Your task to perform on an android device: turn off location history Image 0: 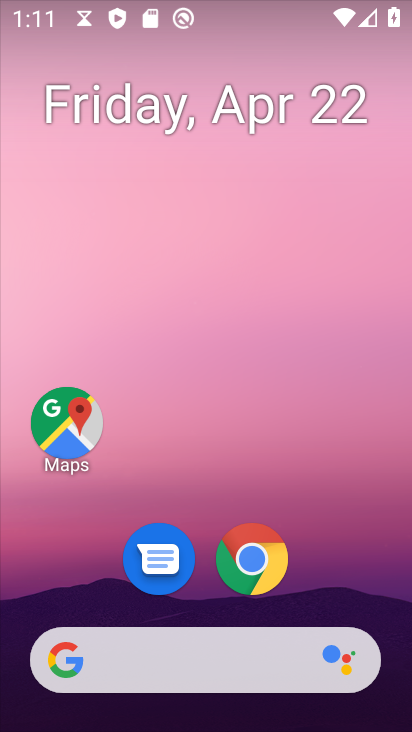
Step 0: drag from (224, 628) to (260, 300)
Your task to perform on an android device: turn off location history Image 1: 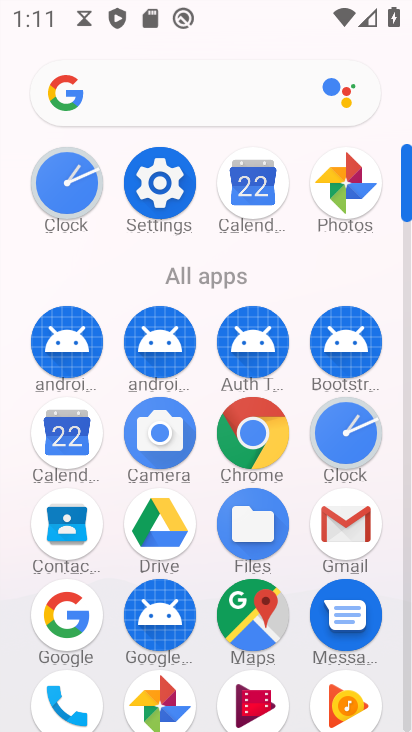
Step 1: click (148, 188)
Your task to perform on an android device: turn off location history Image 2: 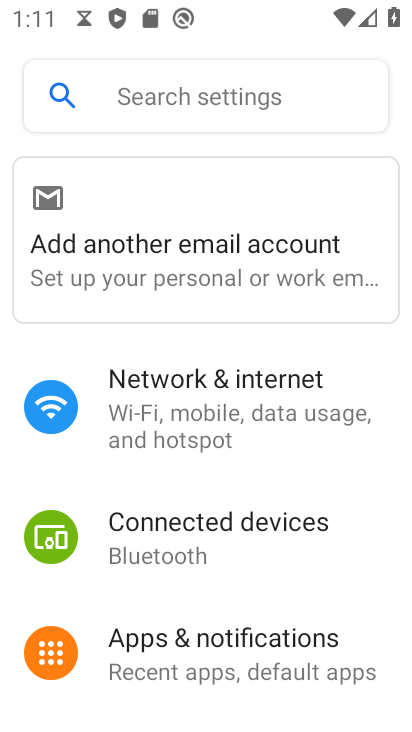
Step 2: drag from (265, 666) to (316, 242)
Your task to perform on an android device: turn off location history Image 3: 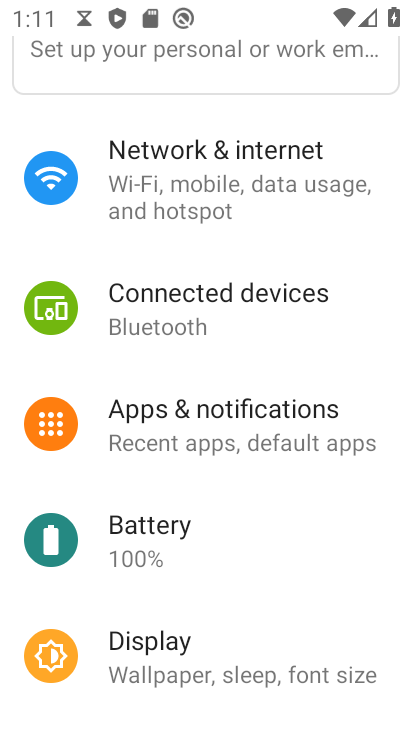
Step 3: drag from (287, 691) to (257, 320)
Your task to perform on an android device: turn off location history Image 4: 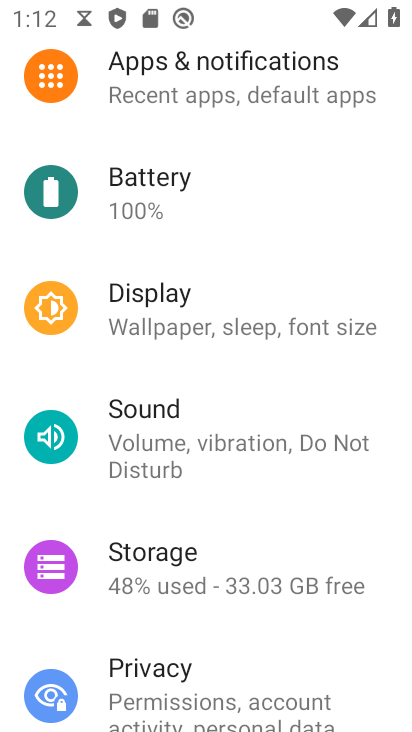
Step 4: drag from (226, 720) to (226, 348)
Your task to perform on an android device: turn off location history Image 5: 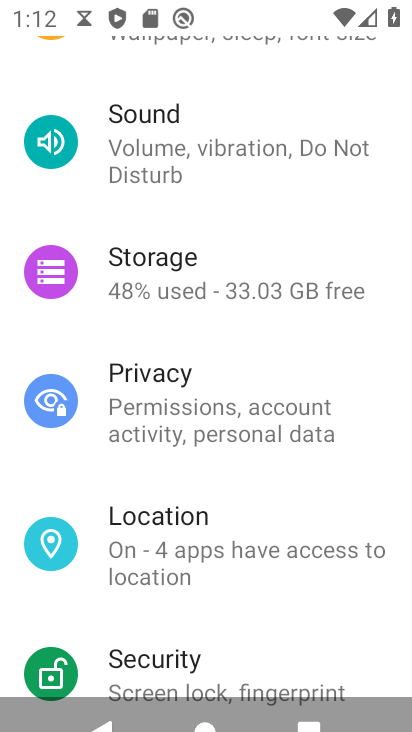
Step 5: click (174, 541)
Your task to perform on an android device: turn off location history Image 6: 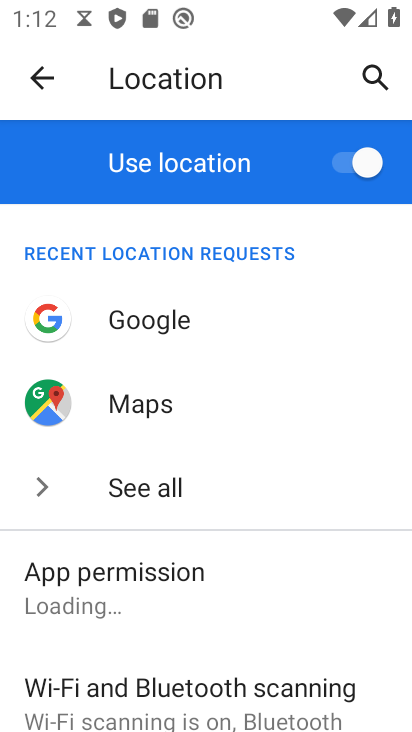
Step 6: drag from (248, 701) to (293, 374)
Your task to perform on an android device: turn off location history Image 7: 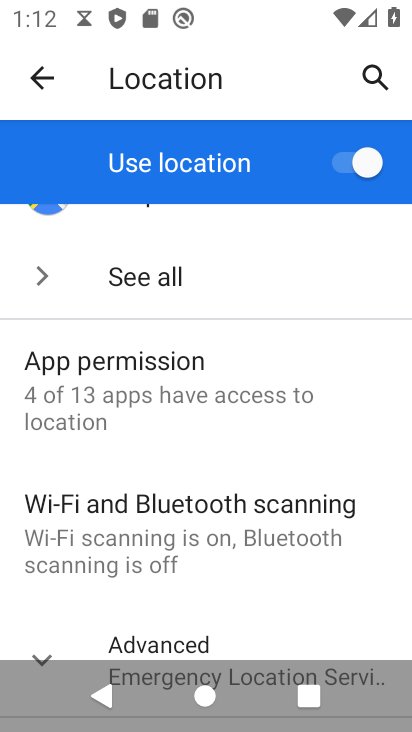
Step 7: drag from (256, 617) to (271, 340)
Your task to perform on an android device: turn off location history Image 8: 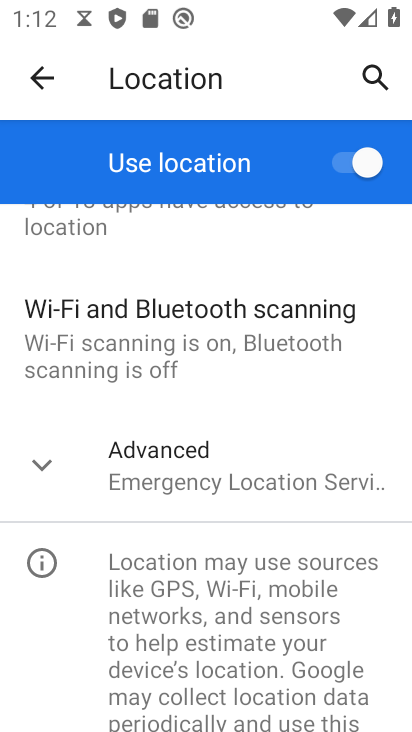
Step 8: click (113, 456)
Your task to perform on an android device: turn off location history Image 9: 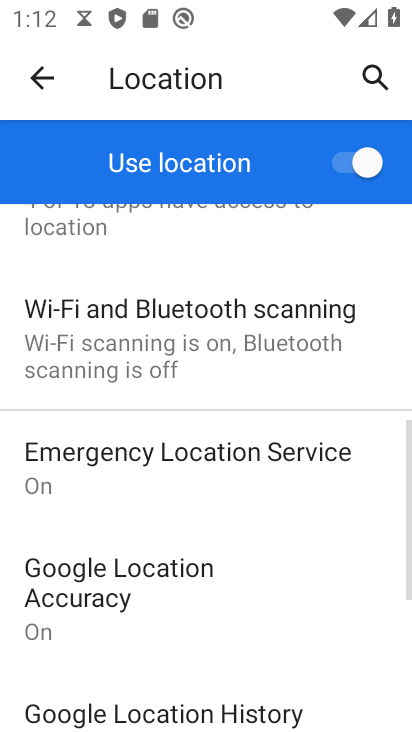
Step 9: drag from (323, 680) to (345, 346)
Your task to perform on an android device: turn off location history Image 10: 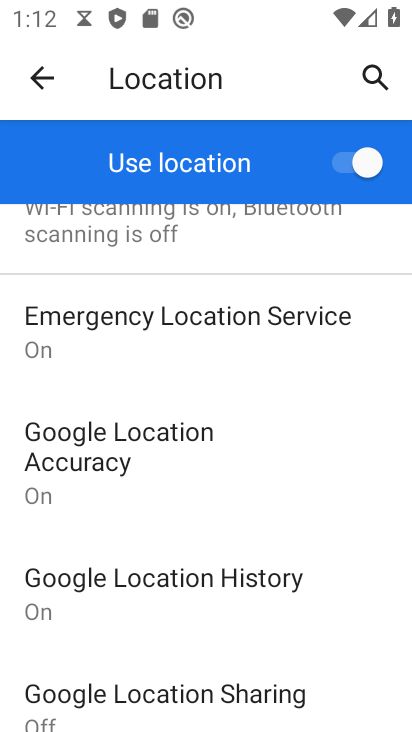
Step 10: click (183, 589)
Your task to perform on an android device: turn off location history Image 11: 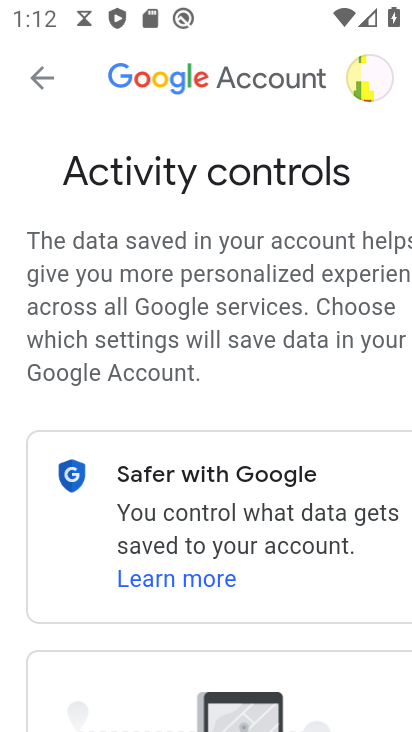
Step 11: drag from (353, 681) to (381, 319)
Your task to perform on an android device: turn off location history Image 12: 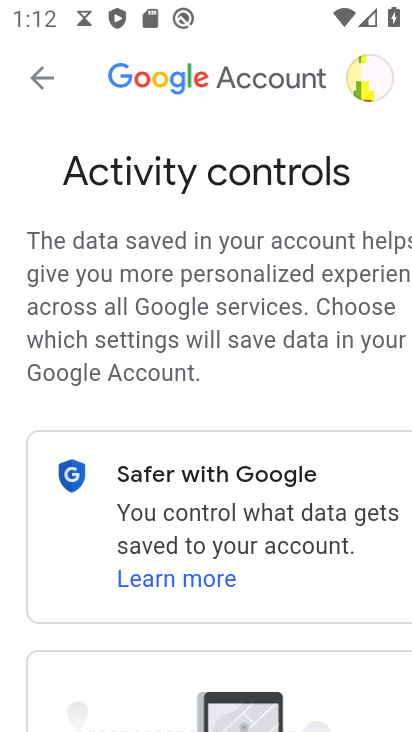
Step 12: drag from (303, 665) to (270, 343)
Your task to perform on an android device: turn off location history Image 13: 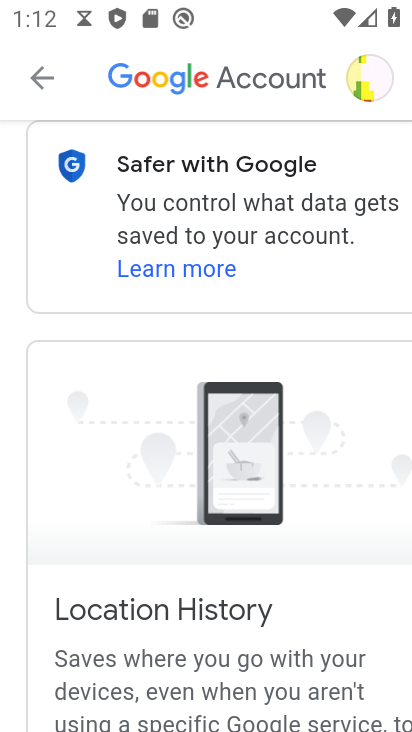
Step 13: drag from (343, 681) to (333, 287)
Your task to perform on an android device: turn off location history Image 14: 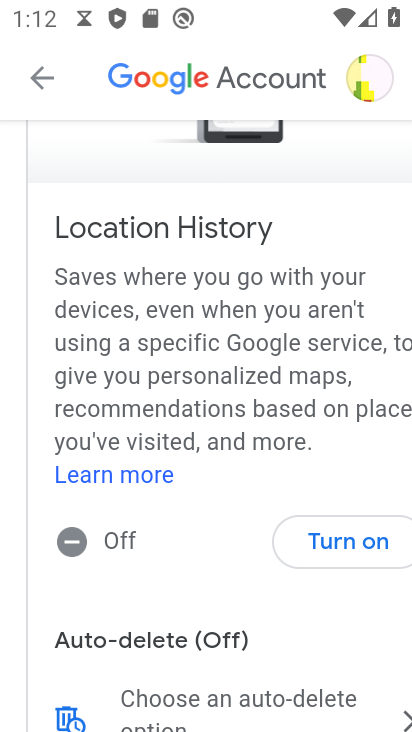
Step 14: click (348, 544)
Your task to perform on an android device: turn off location history Image 15: 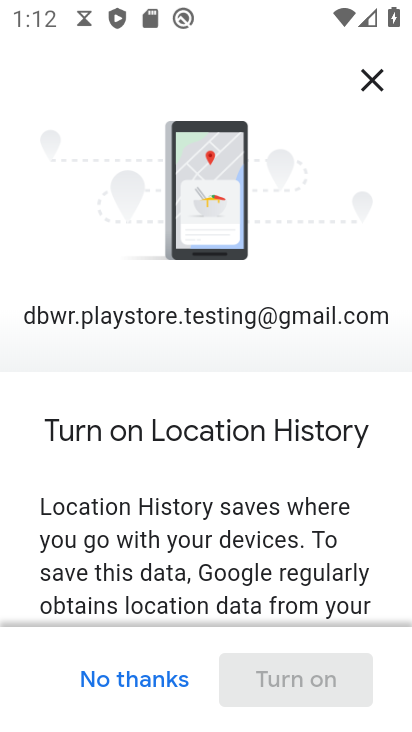
Step 15: drag from (298, 620) to (312, 307)
Your task to perform on an android device: turn off location history Image 16: 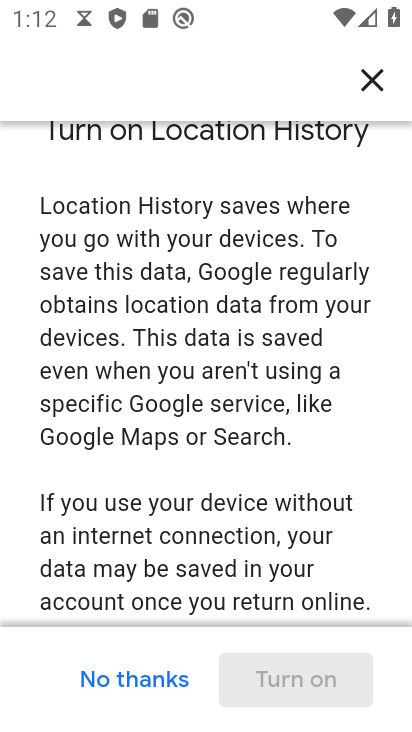
Step 16: click (315, 679)
Your task to perform on an android device: turn off location history Image 17: 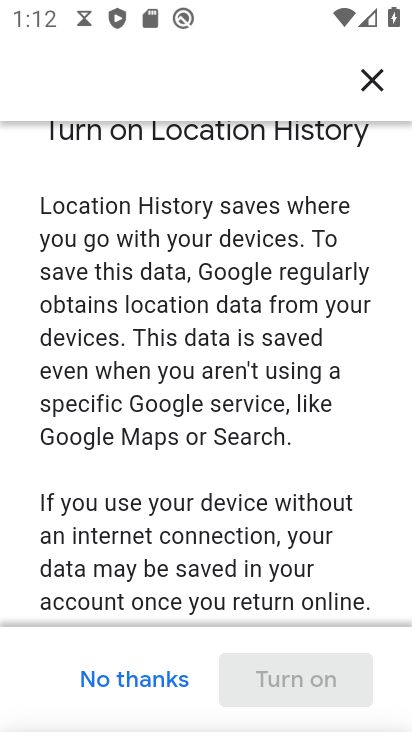
Step 17: task complete